Your task to perform on an android device: turn on data saver in the chrome app Image 0: 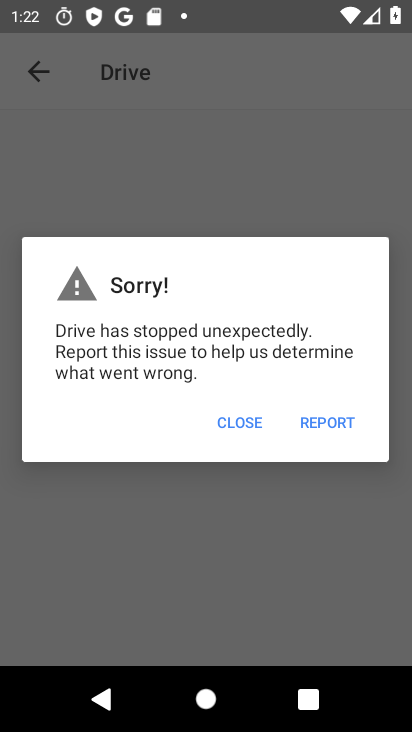
Step 0: press home button
Your task to perform on an android device: turn on data saver in the chrome app Image 1: 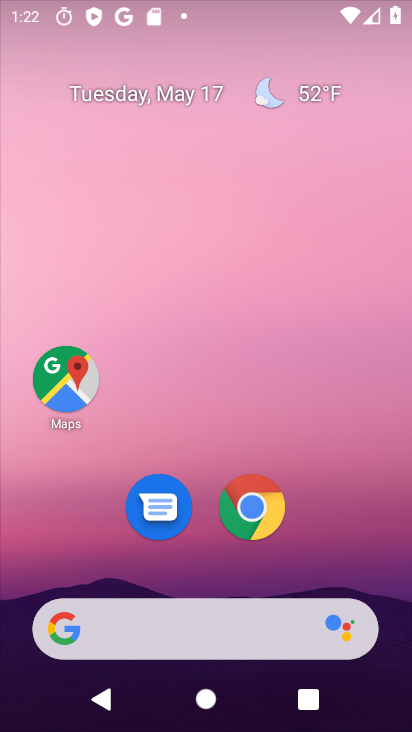
Step 1: click (260, 509)
Your task to perform on an android device: turn on data saver in the chrome app Image 2: 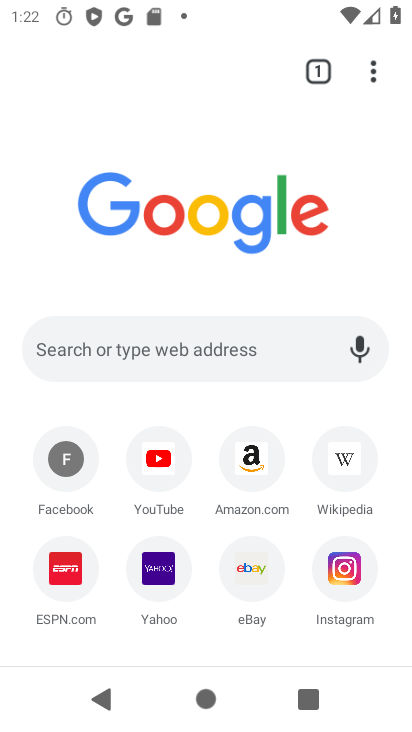
Step 2: click (360, 75)
Your task to perform on an android device: turn on data saver in the chrome app Image 3: 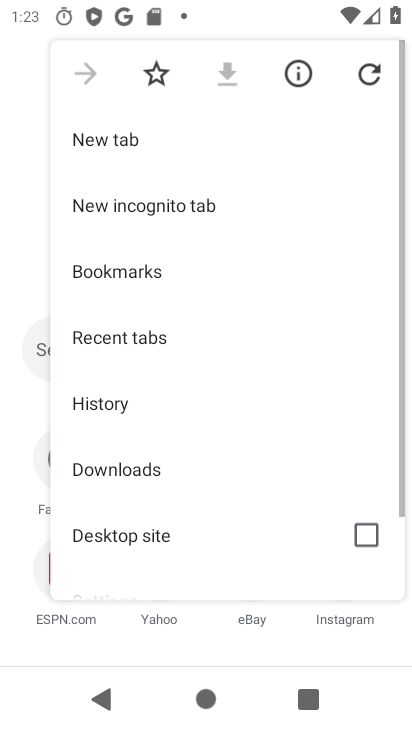
Step 3: drag from (153, 489) to (159, 133)
Your task to perform on an android device: turn on data saver in the chrome app Image 4: 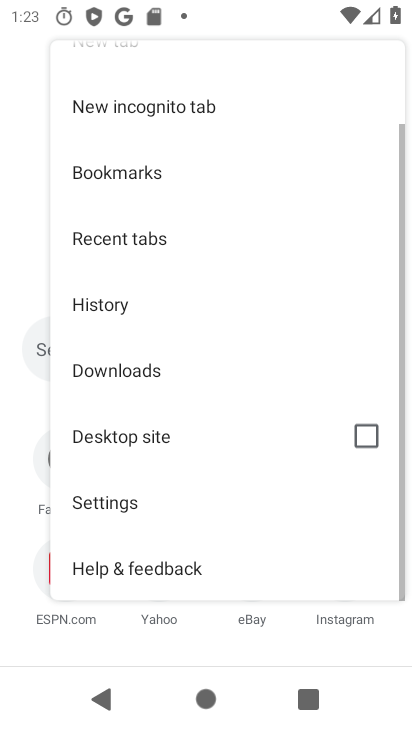
Step 4: click (129, 501)
Your task to perform on an android device: turn on data saver in the chrome app Image 5: 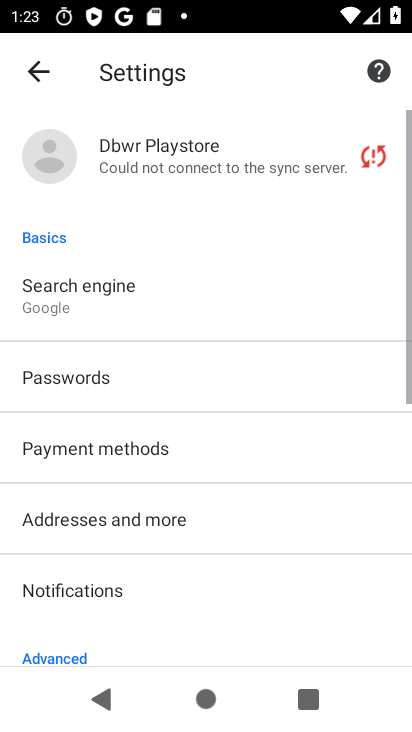
Step 5: drag from (253, 519) to (251, 26)
Your task to perform on an android device: turn on data saver in the chrome app Image 6: 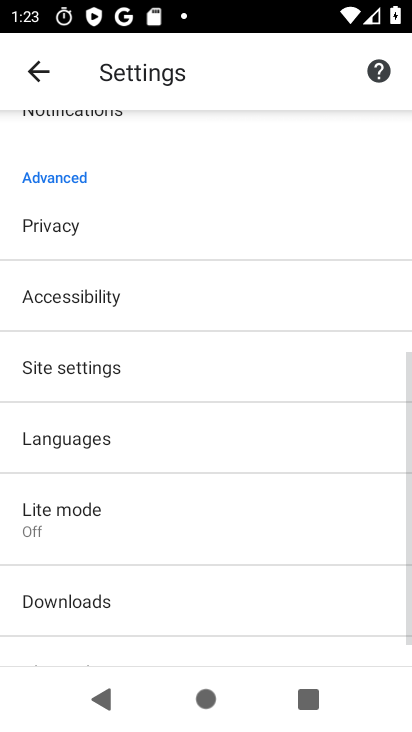
Step 6: click (81, 494)
Your task to perform on an android device: turn on data saver in the chrome app Image 7: 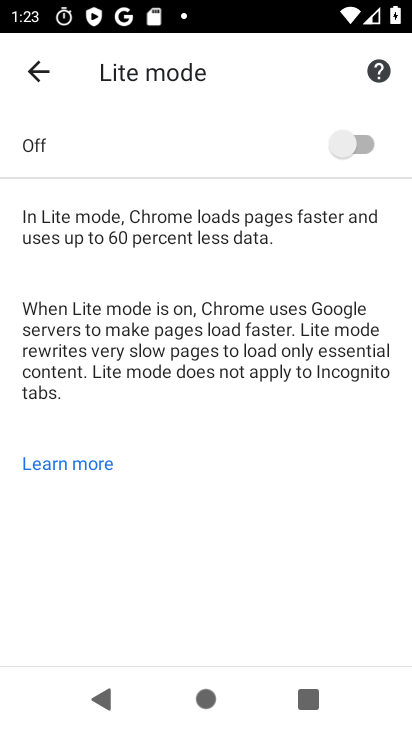
Step 7: click (354, 158)
Your task to perform on an android device: turn on data saver in the chrome app Image 8: 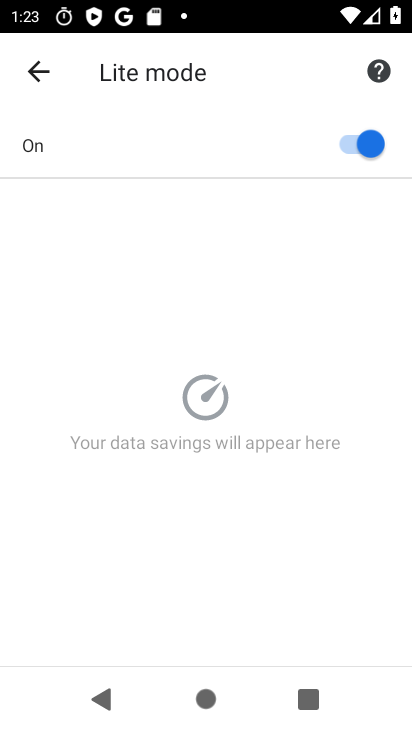
Step 8: task complete